Your task to perform on an android device: all mails in gmail Image 0: 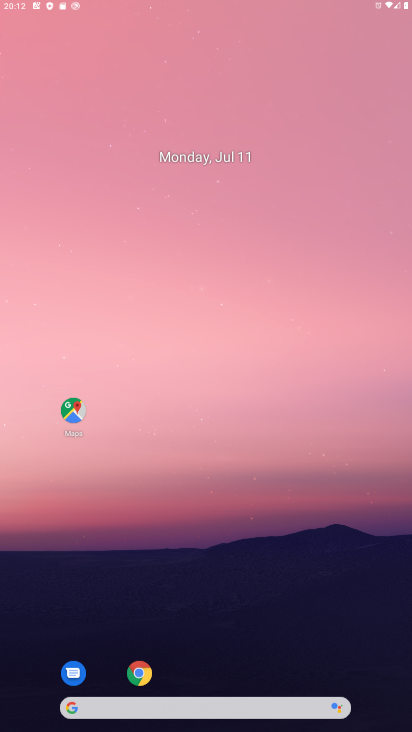
Step 0: press home button
Your task to perform on an android device: all mails in gmail Image 1: 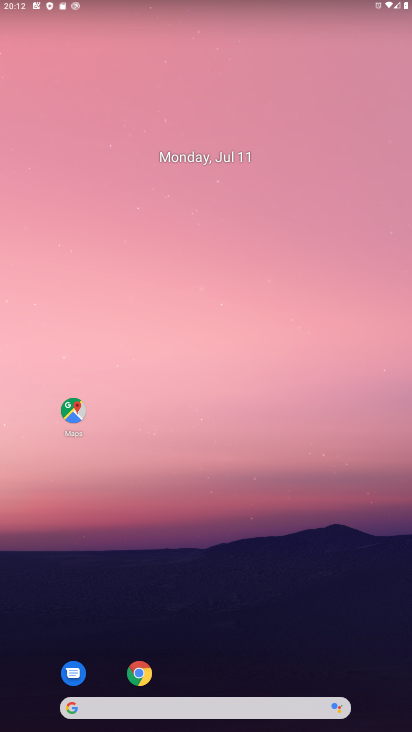
Step 1: drag from (203, 673) to (249, 130)
Your task to perform on an android device: all mails in gmail Image 2: 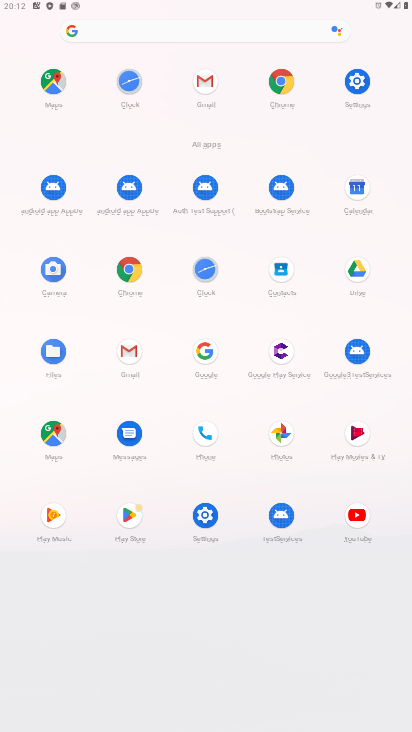
Step 2: click (194, 76)
Your task to perform on an android device: all mails in gmail Image 3: 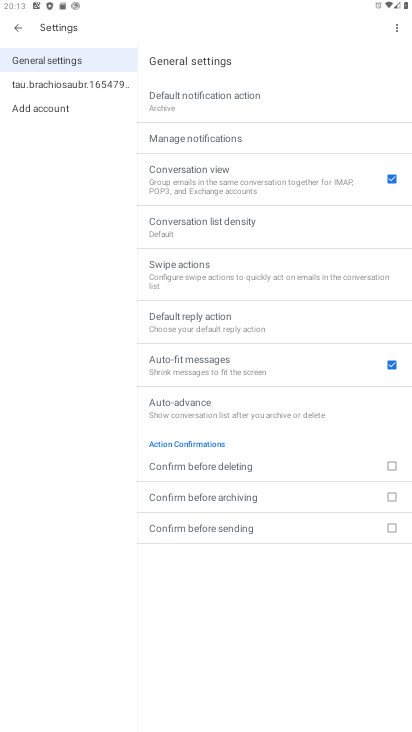
Step 3: press home button
Your task to perform on an android device: all mails in gmail Image 4: 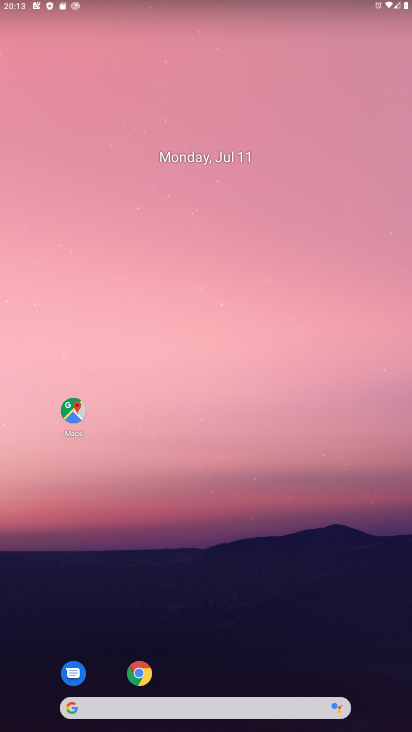
Step 4: drag from (224, 588) to (259, 69)
Your task to perform on an android device: all mails in gmail Image 5: 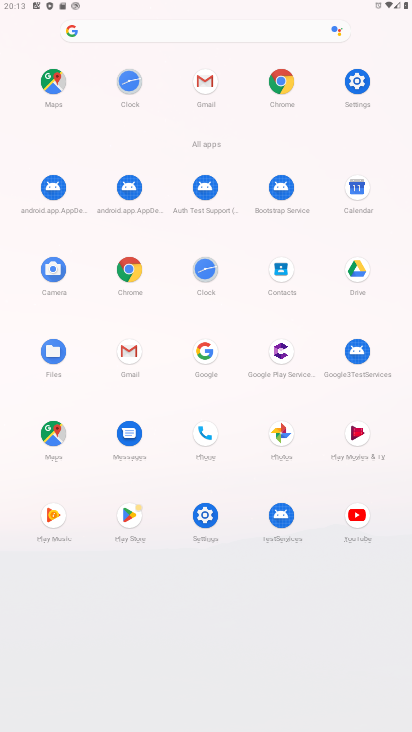
Step 5: click (131, 345)
Your task to perform on an android device: all mails in gmail Image 6: 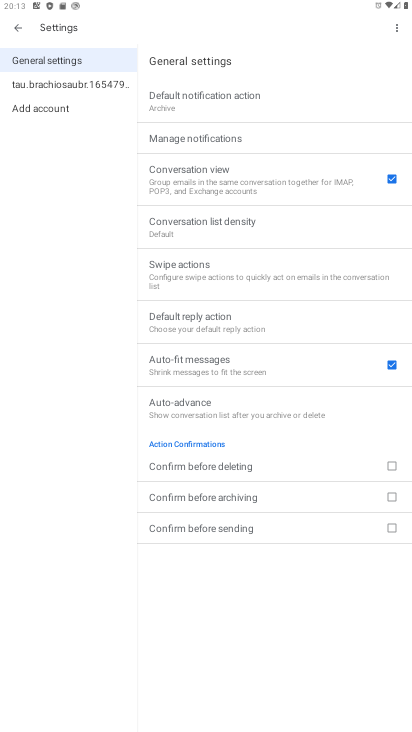
Step 6: click (23, 26)
Your task to perform on an android device: all mails in gmail Image 7: 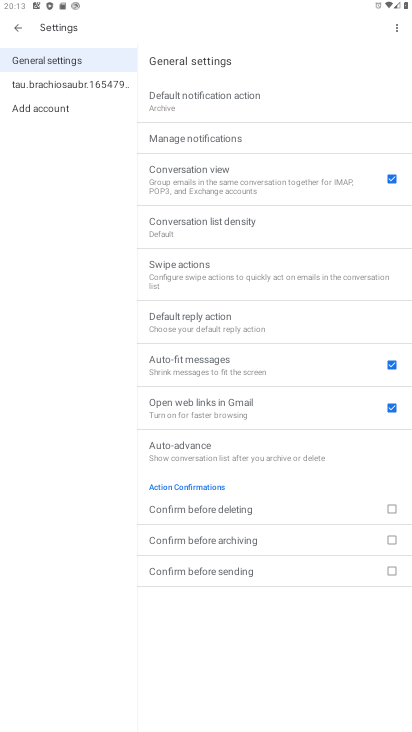
Step 7: click (19, 28)
Your task to perform on an android device: all mails in gmail Image 8: 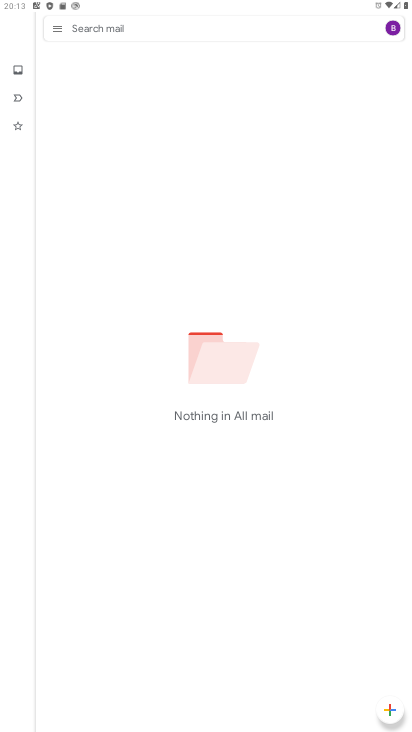
Step 8: click (54, 27)
Your task to perform on an android device: all mails in gmail Image 9: 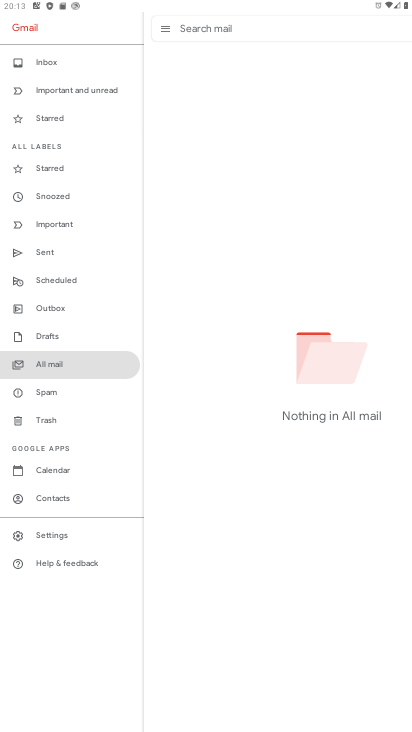
Step 9: click (52, 359)
Your task to perform on an android device: all mails in gmail Image 10: 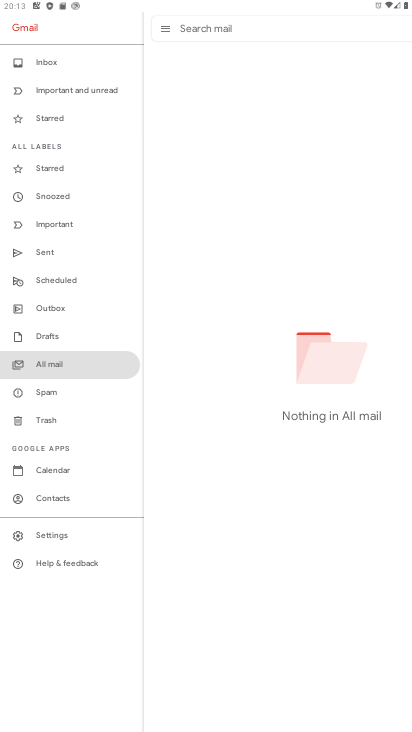
Step 10: task complete